Your task to perform on an android device: add a contact in the contacts app Image 0: 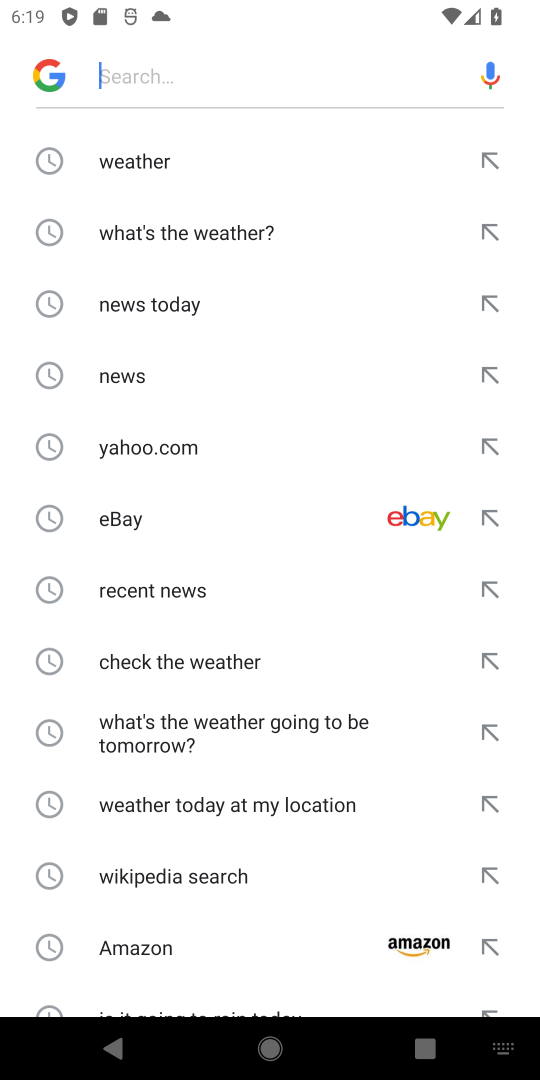
Step 0: press back button
Your task to perform on an android device: add a contact in the contacts app Image 1: 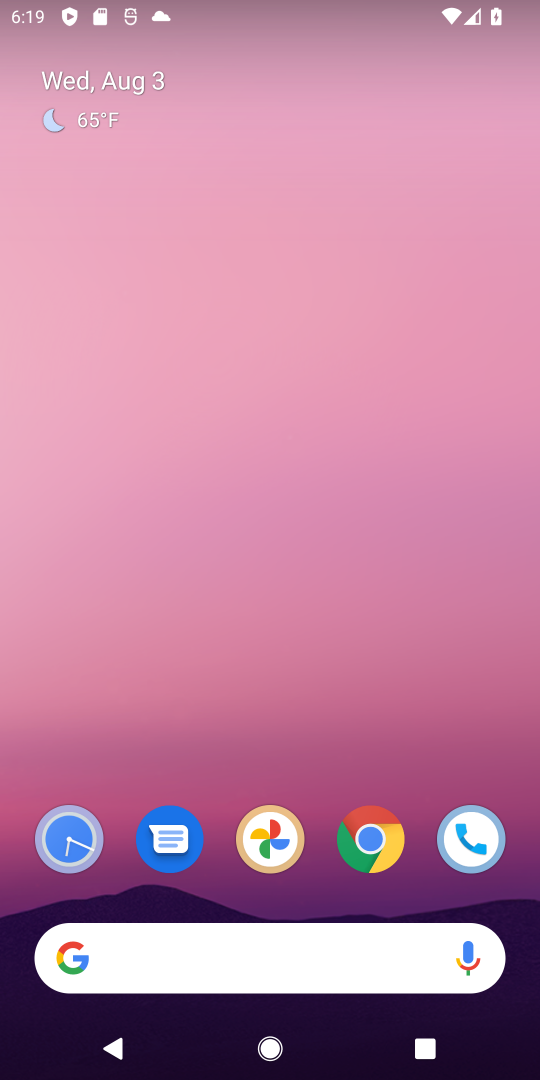
Step 1: drag from (257, 637) to (346, 77)
Your task to perform on an android device: add a contact in the contacts app Image 2: 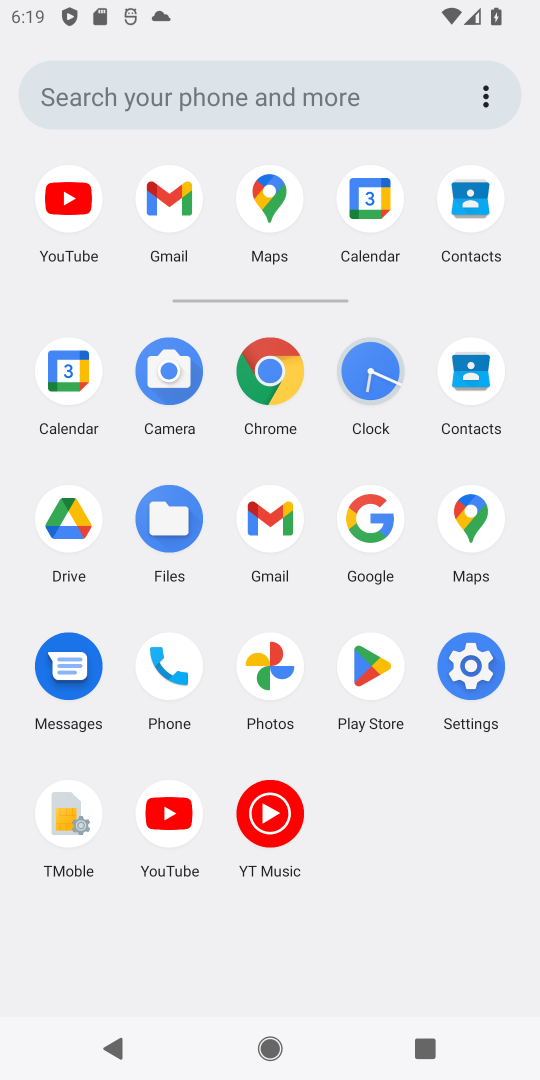
Step 2: click (477, 394)
Your task to perform on an android device: add a contact in the contacts app Image 3: 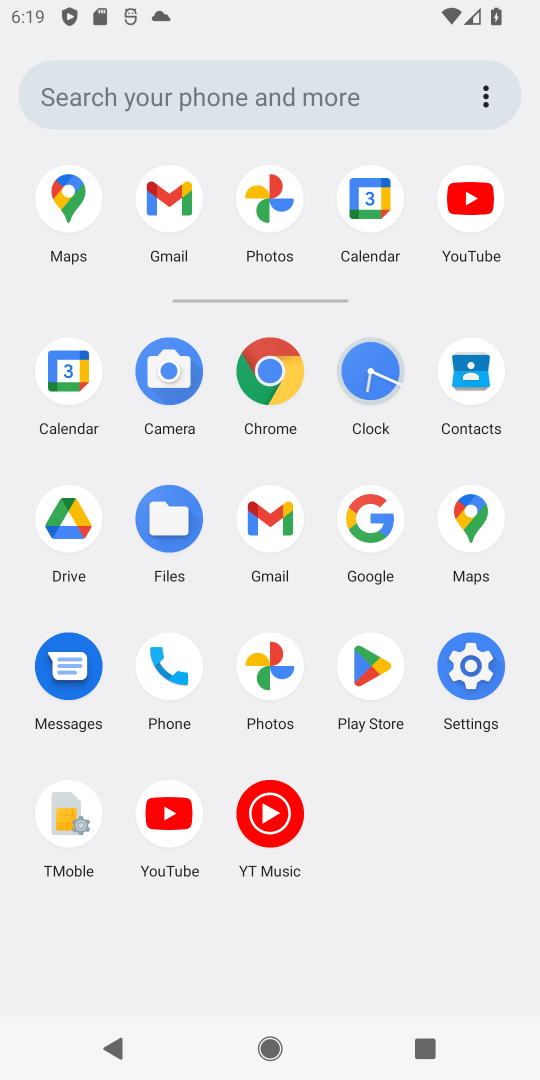
Step 3: click (471, 369)
Your task to perform on an android device: add a contact in the contacts app Image 4: 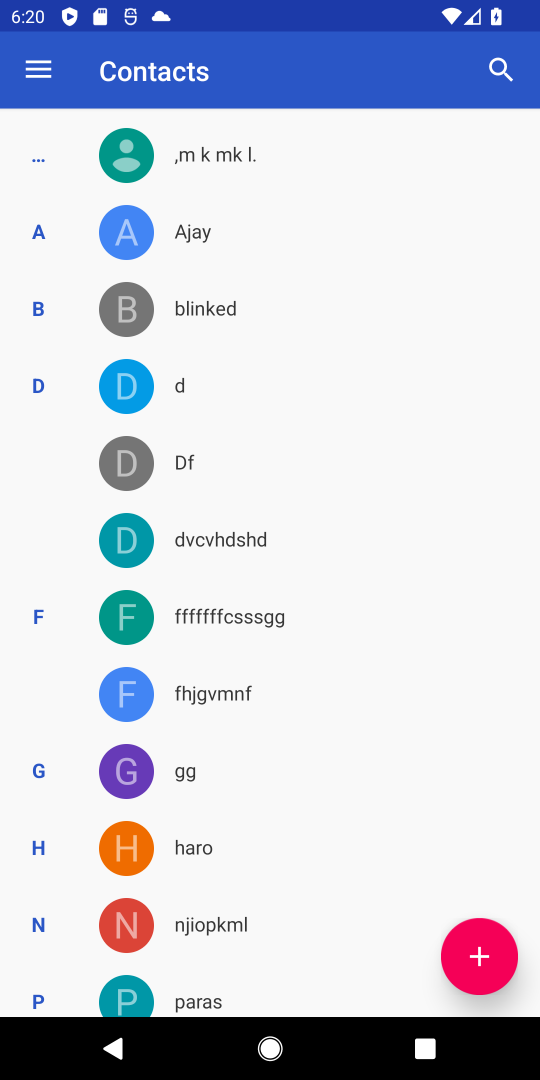
Step 4: click (471, 960)
Your task to perform on an android device: add a contact in the contacts app Image 5: 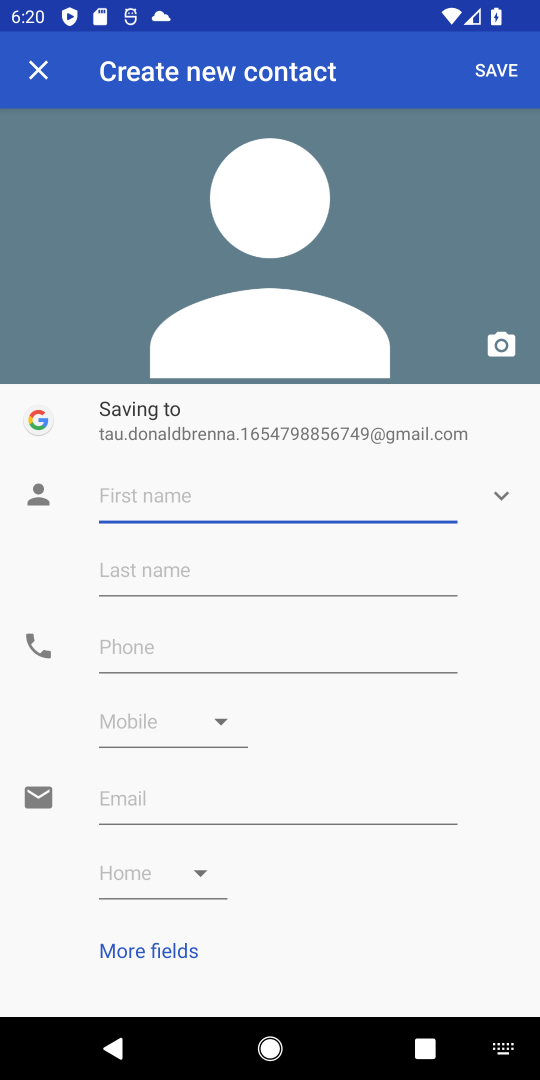
Step 5: click (134, 496)
Your task to perform on an android device: add a contact in the contacts app Image 6: 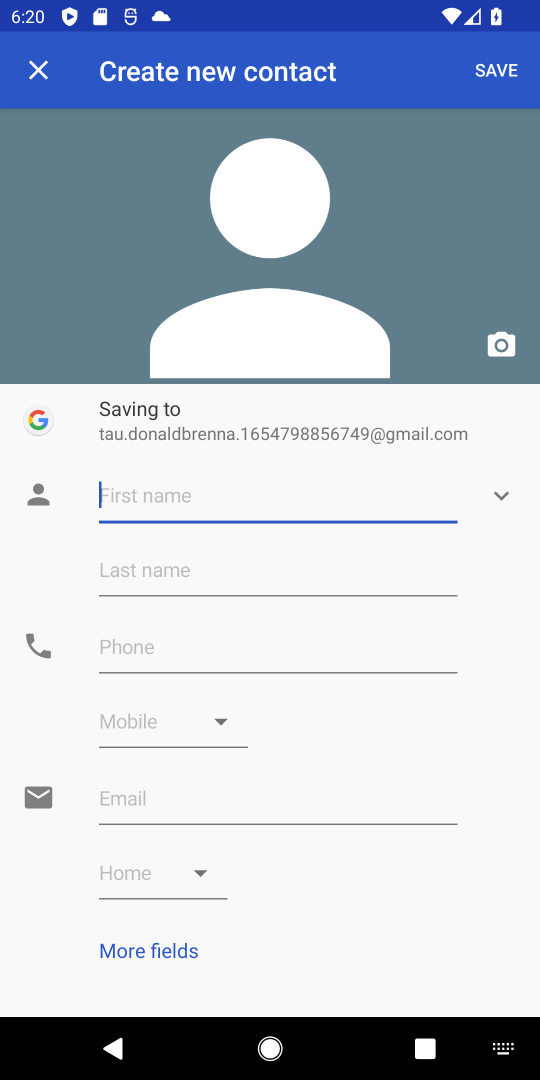
Step 6: type "hvv"
Your task to perform on an android device: add a contact in the contacts app Image 7: 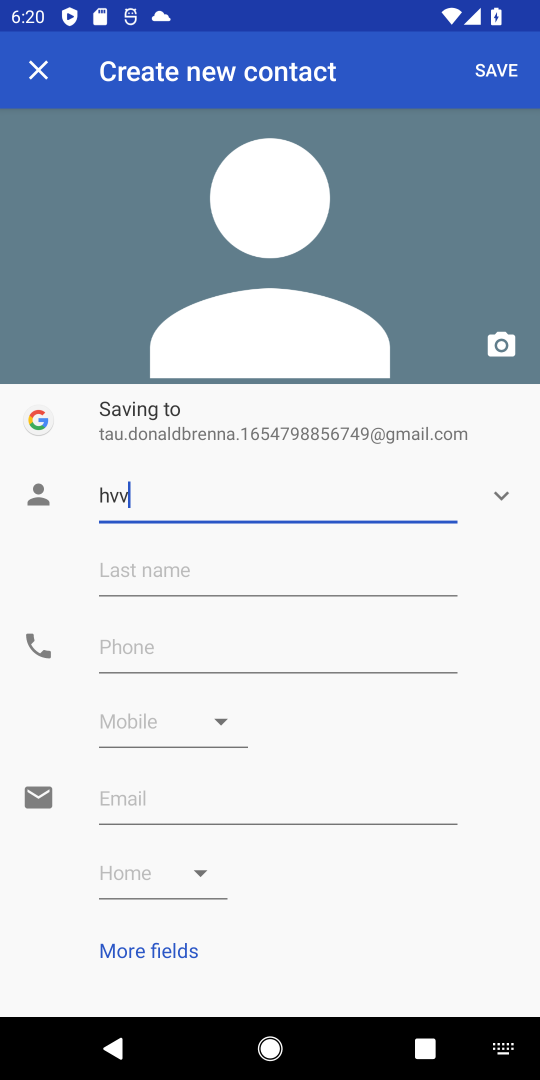
Step 7: click (146, 644)
Your task to perform on an android device: add a contact in the contacts app Image 8: 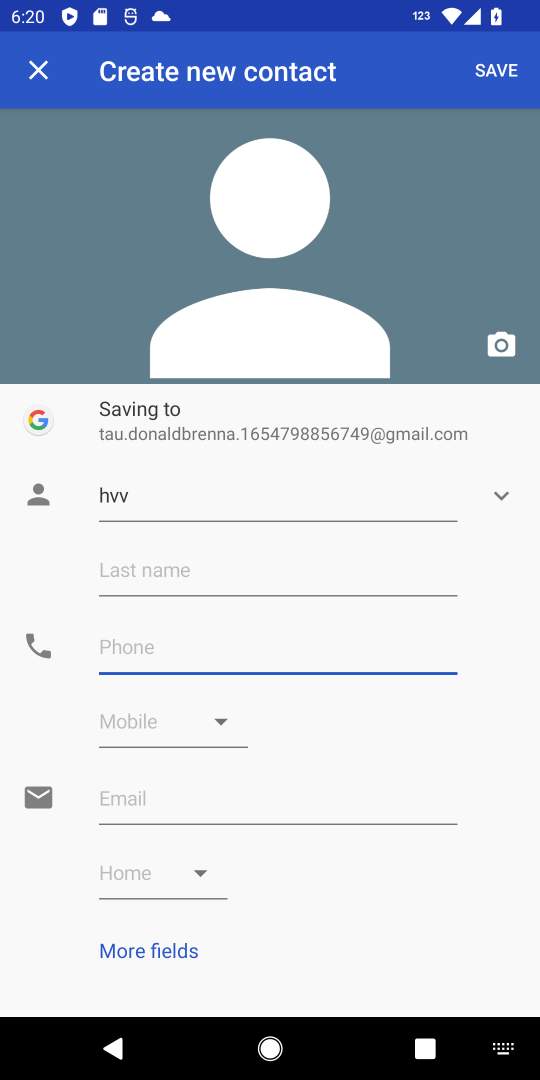
Step 8: type "76575"
Your task to perform on an android device: add a contact in the contacts app Image 9: 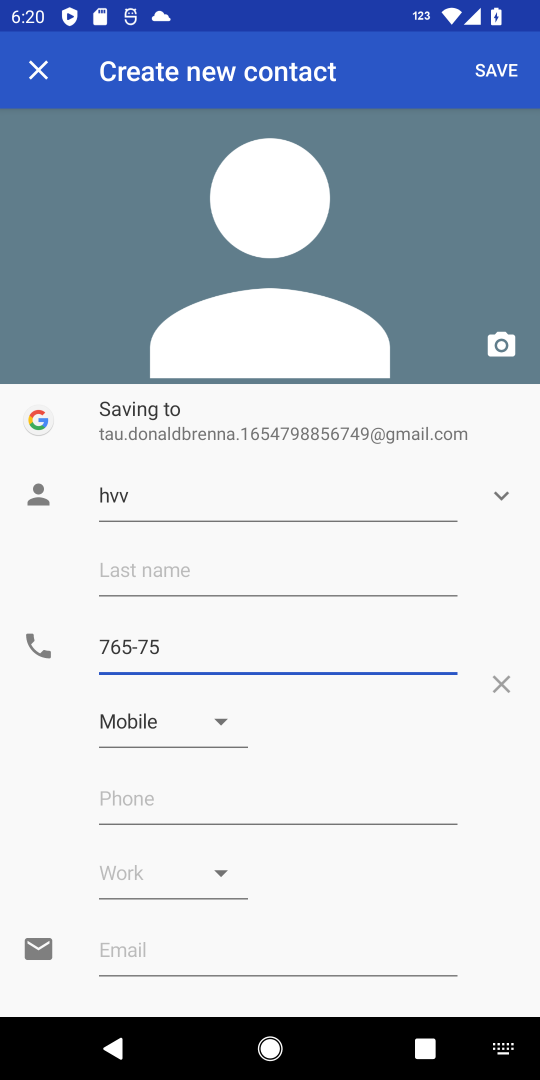
Step 9: click (498, 61)
Your task to perform on an android device: add a contact in the contacts app Image 10: 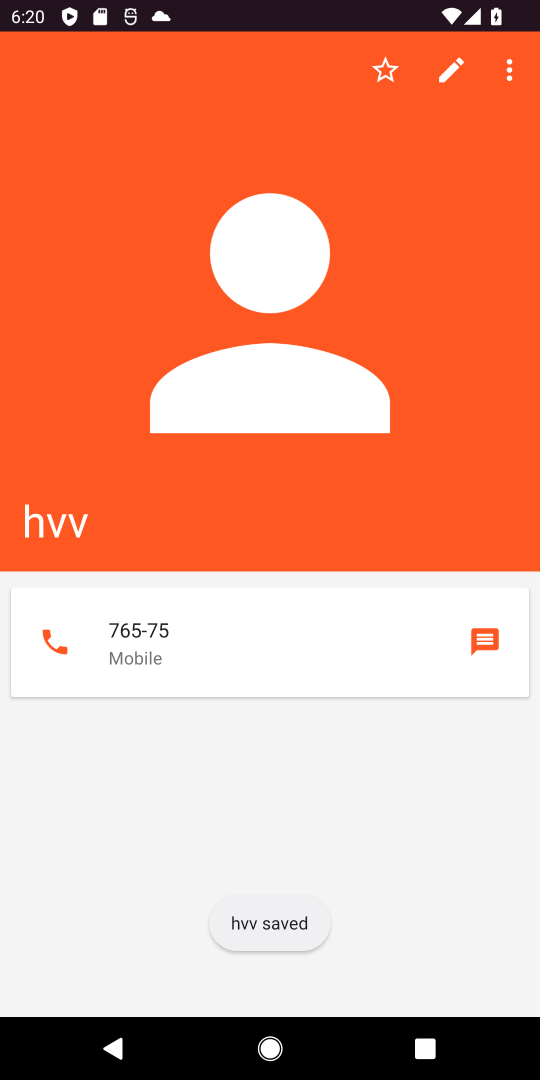
Step 10: task complete